Your task to perform on an android device: Open Google Image 0: 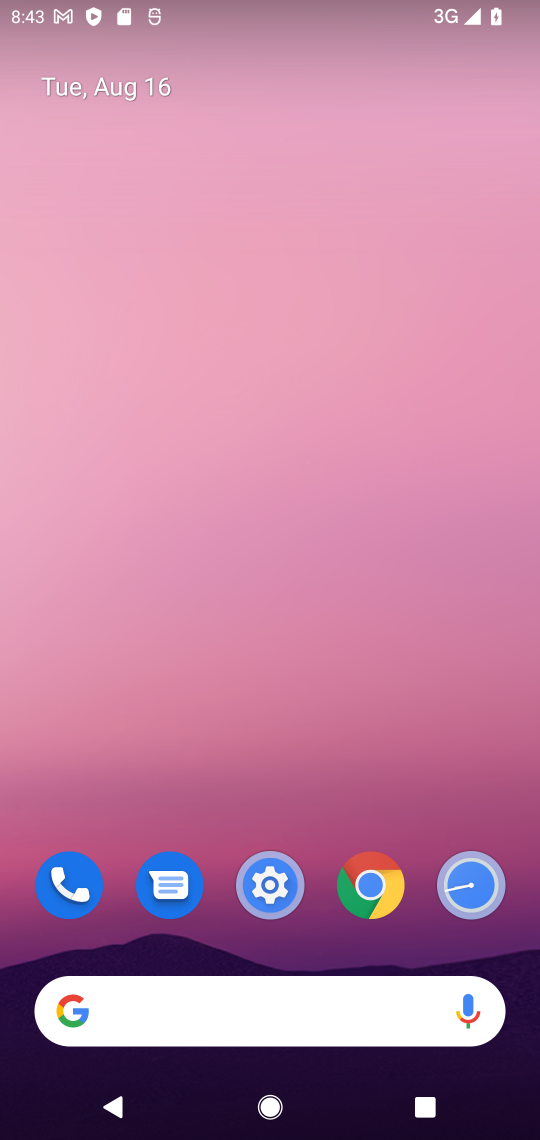
Step 0: click (273, 941)
Your task to perform on an android device: Open Google Image 1: 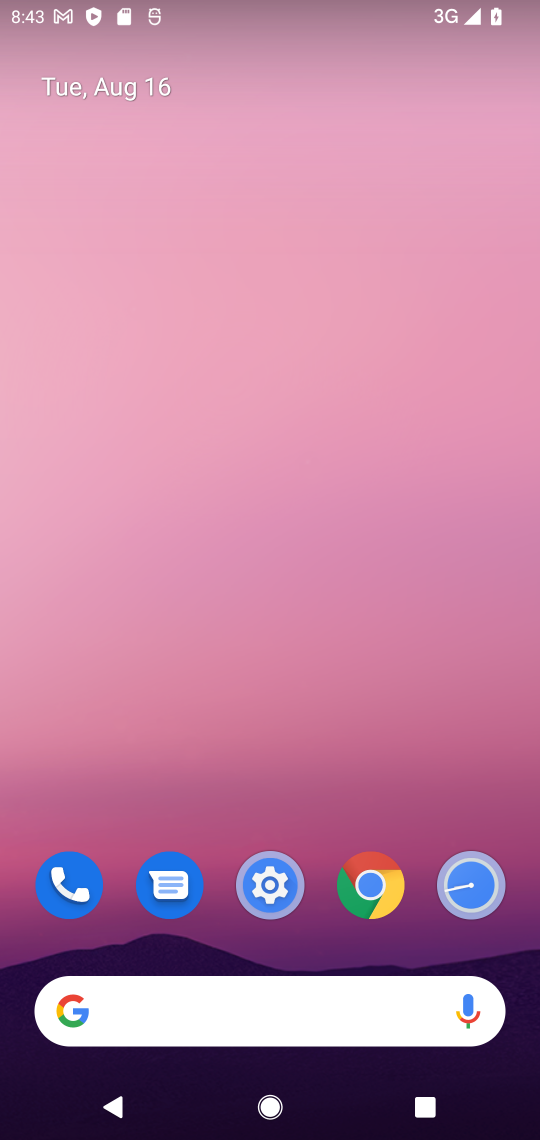
Step 1: click (165, 1009)
Your task to perform on an android device: Open Google Image 2: 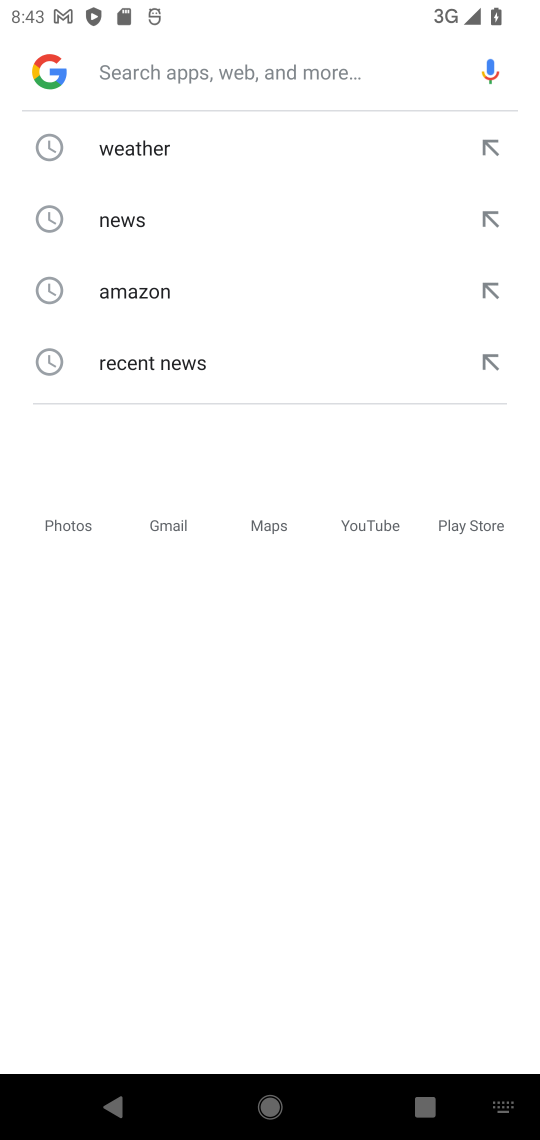
Step 2: task complete